Your task to perform on an android device: change the clock style Image 0: 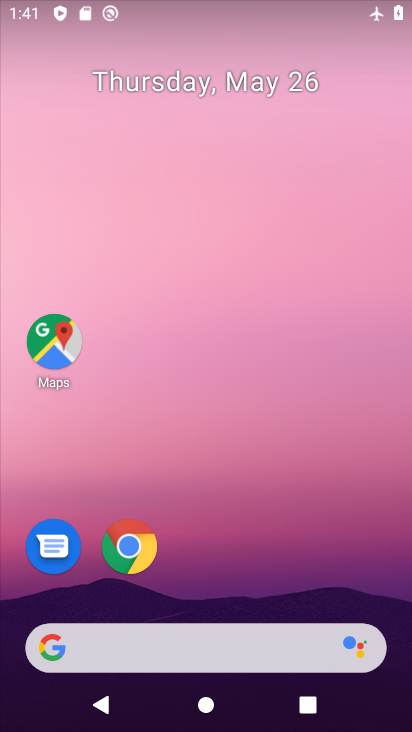
Step 0: drag from (215, 540) to (208, 47)
Your task to perform on an android device: change the clock style Image 1: 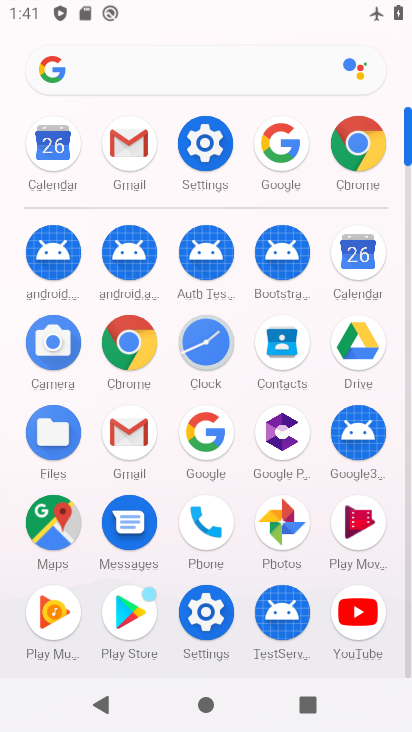
Step 1: click (213, 353)
Your task to perform on an android device: change the clock style Image 2: 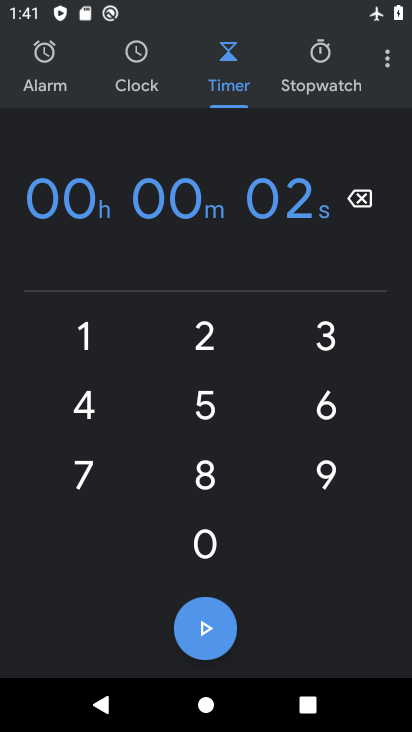
Step 2: click (383, 60)
Your task to perform on an android device: change the clock style Image 3: 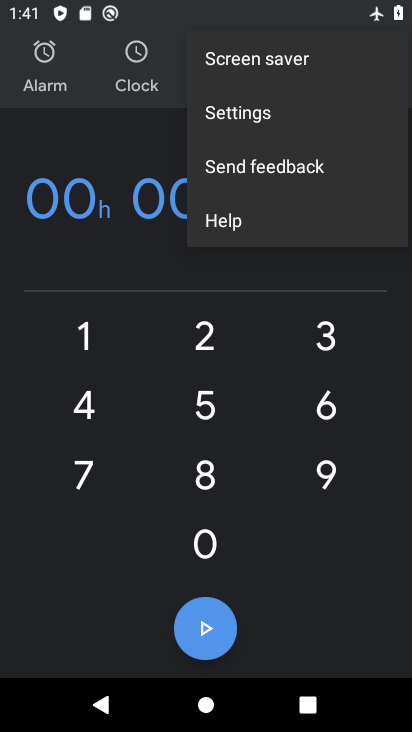
Step 3: click (261, 116)
Your task to perform on an android device: change the clock style Image 4: 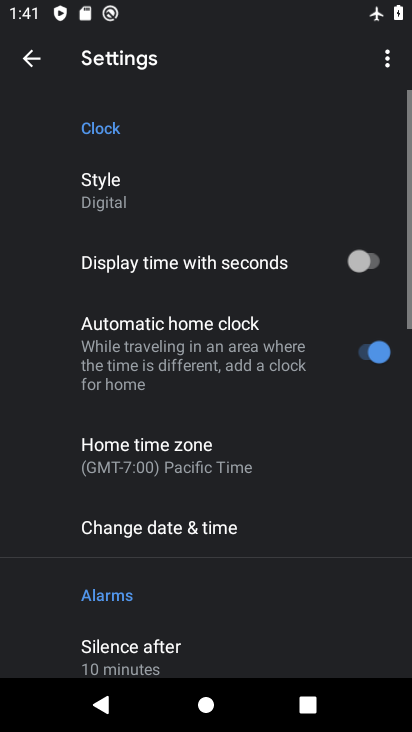
Step 4: click (147, 199)
Your task to perform on an android device: change the clock style Image 5: 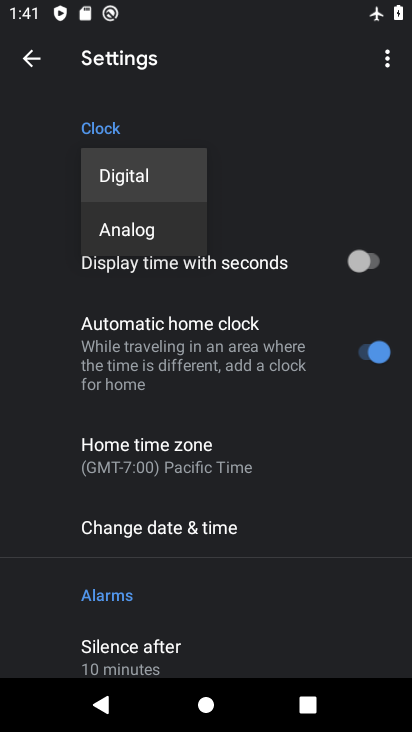
Step 5: click (123, 226)
Your task to perform on an android device: change the clock style Image 6: 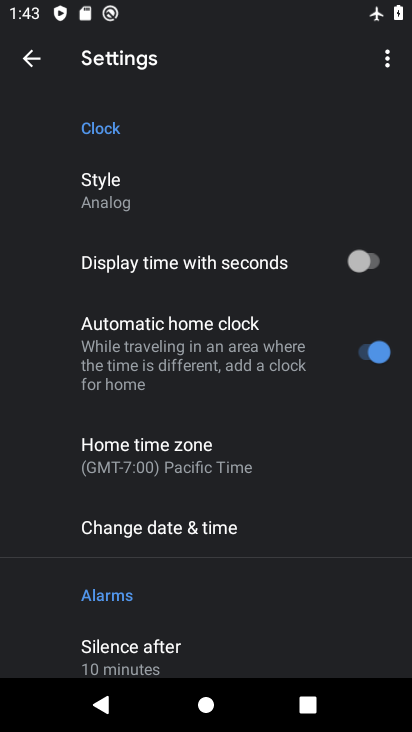
Step 6: task complete